Your task to perform on an android device: Open Google Maps Image 0: 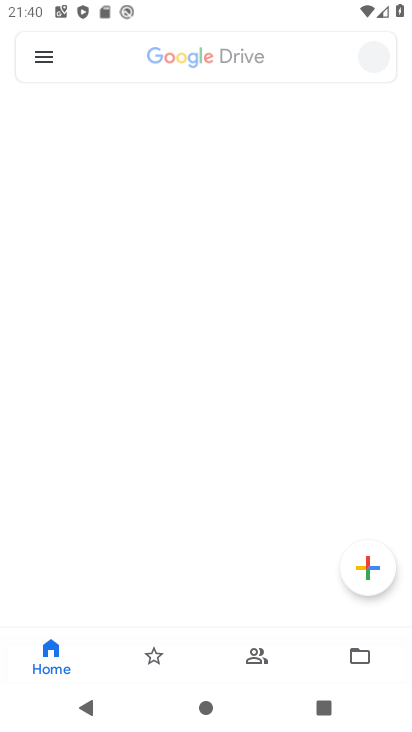
Step 0: press home button
Your task to perform on an android device: Open Google Maps Image 1: 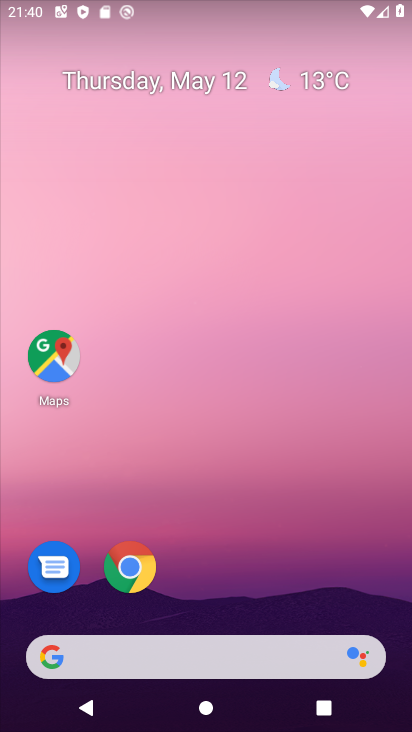
Step 1: click (56, 355)
Your task to perform on an android device: Open Google Maps Image 2: 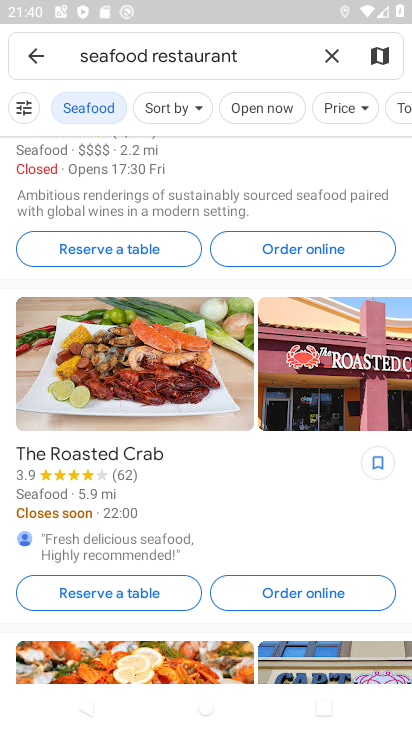
Step 2: click (332, 65)
Your task to perform on an android device: Open Google Maps Image 3: 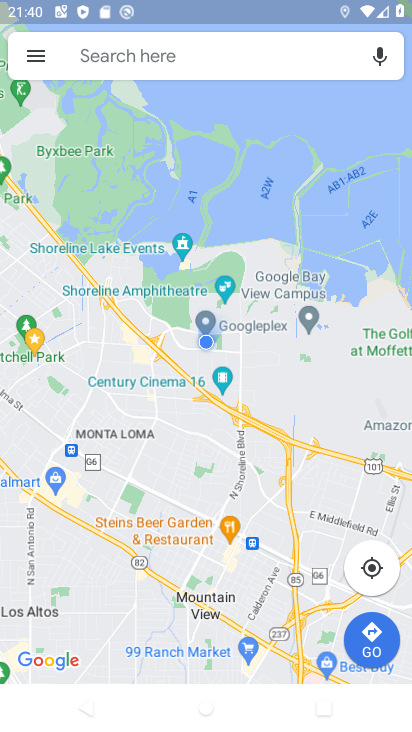
Step 3: task complete